Your task to perform on an android device: open wifi settings Image 0: 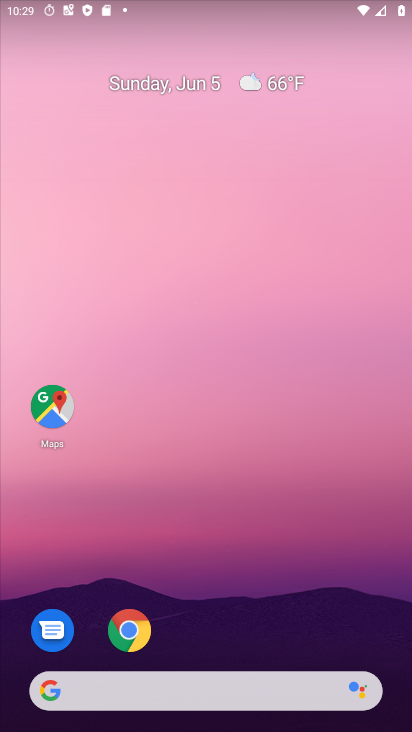
Step 0: drag from (225, 510) to (233, 30)
Your task to perform on an android device: open wifi settings Image 1: 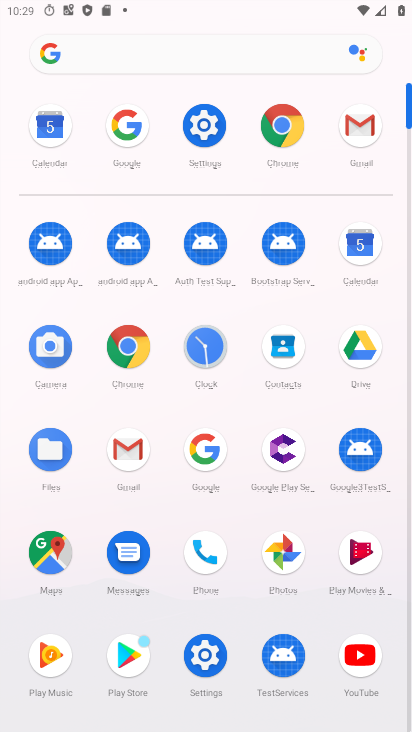
Step 1: click (200, 123)
Your task to perform on an android device: open wifi settings Image 2: 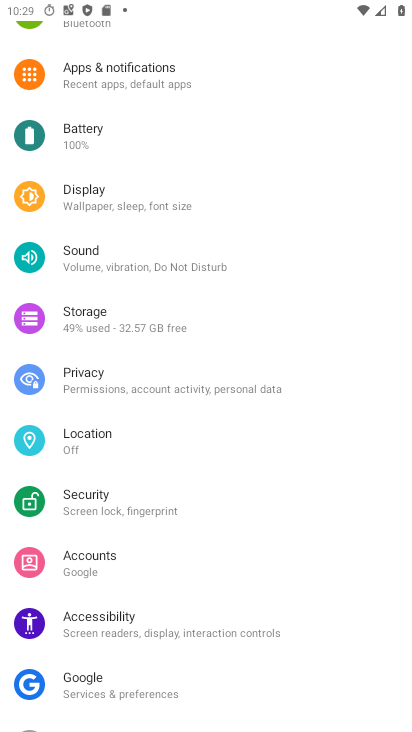
Step 2: drag from (252, 100) to (249, 512)
Your task to perform on an android device: open wifi settings Image 3: 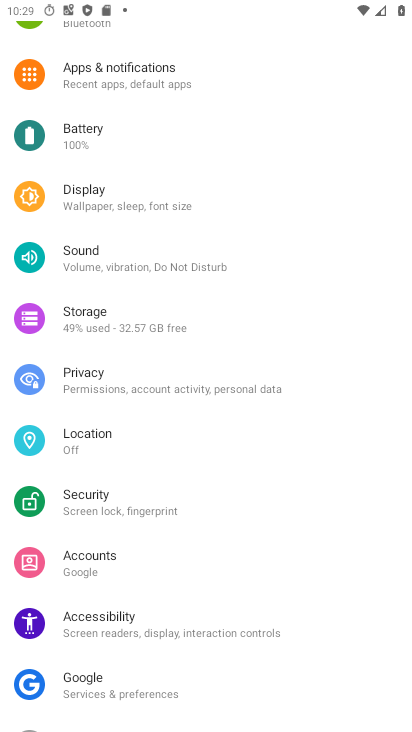
Step 3: drag from (290, 117) to (295, 522)
Your task to perform on an android device: open wifi settings Image 4: 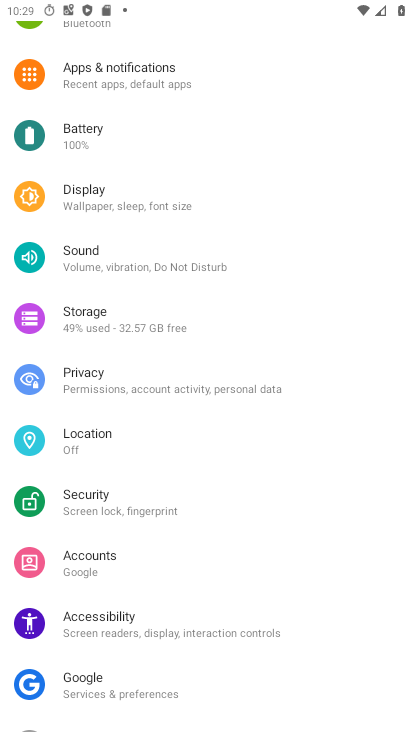
Step 4: drag from (263, 108) to (274, 466)
Your task to perform on an android device: open wifi settings Image 5: 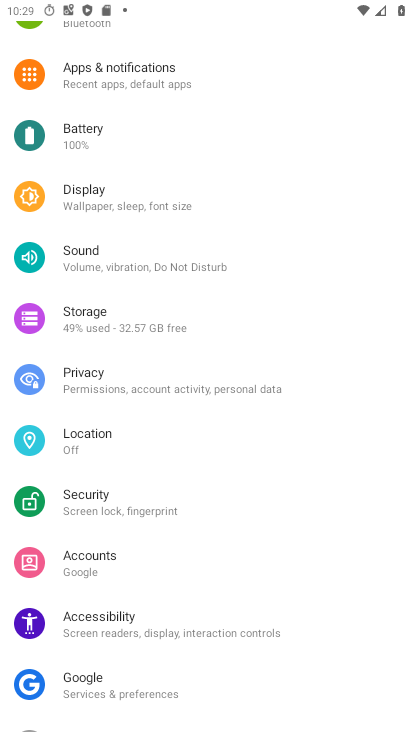
Step 5: drag from (133, 120) to (133, 527)
Your task to perform on an android device: open wifi settings Image 6: 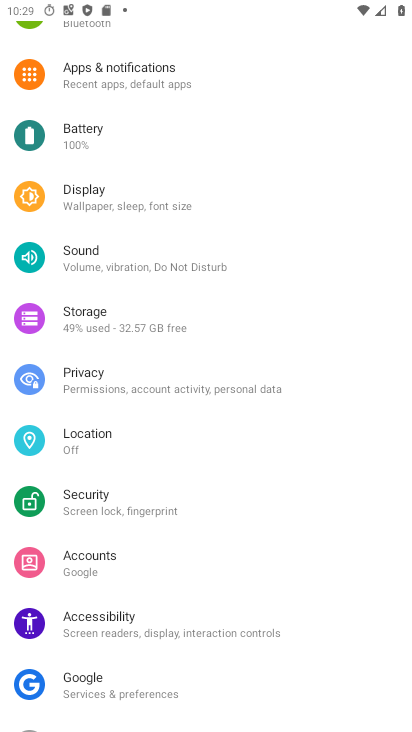
Step 6: drag from (284, 97) to (270, 510)
Your task to perform on an android device: open wifi settings Image 7: 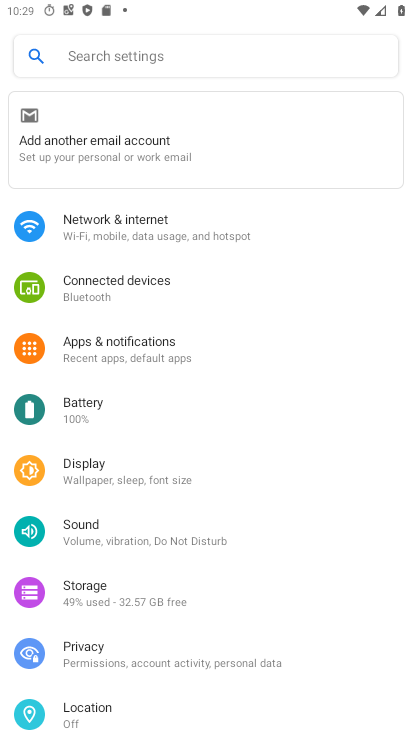
Step 7: click (90, 223)
Your task to perform on an android device: open wifi settings Image 8: 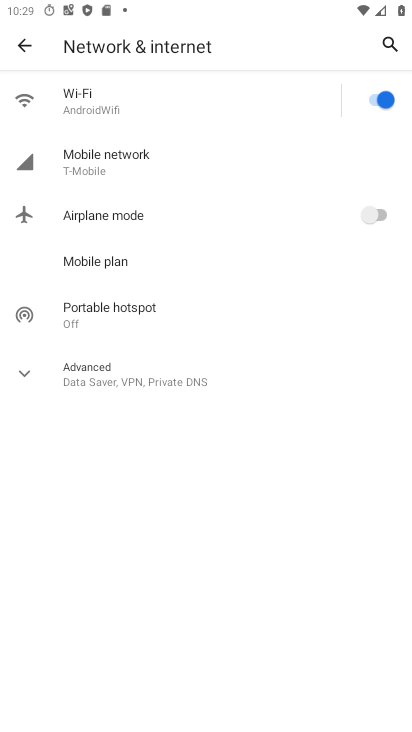
Step 8: click (68, 101)
Your task to perform on an android device: open wifi settings Image 9: 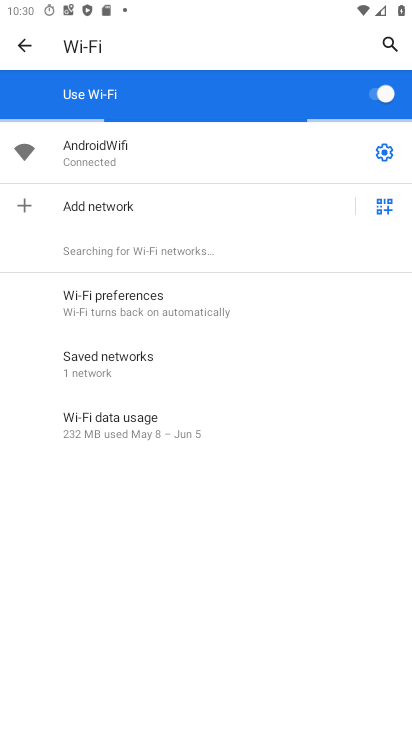
Step 9: task complete